Your task to perform on an android device: Add rayovac triple a to the cart on costco.com Image 0: 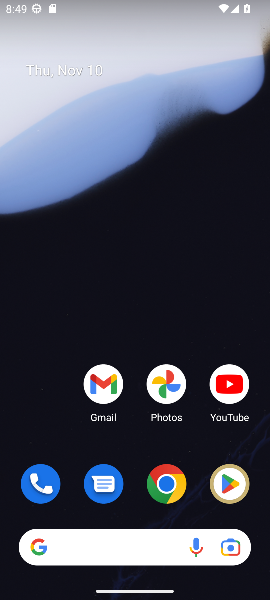
Step 0: click (170, 488)
Your task to perform on an android device: Add rayovac triple a to the cart on costco.com Image 1: 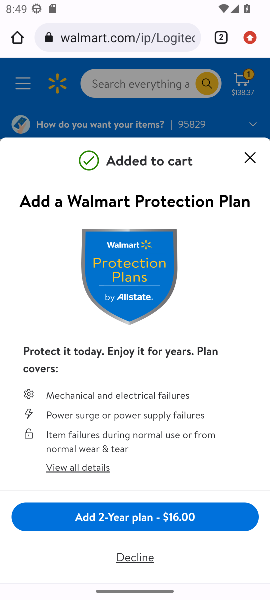
Step 1: click (123, 39)
Your task to perform on an android device: Add rayovac triple a to the cart on costco.com Image 2: 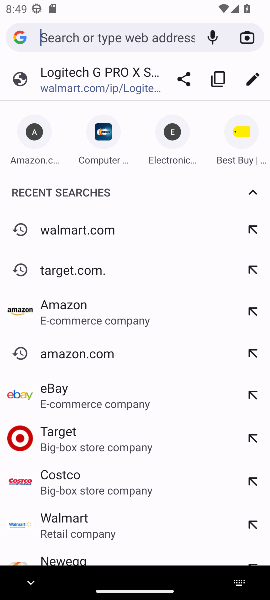
Step 2: type "costco.com"
Your task to perform on an android device: Add rayovac triple a to the cart on costco.com Image 3: 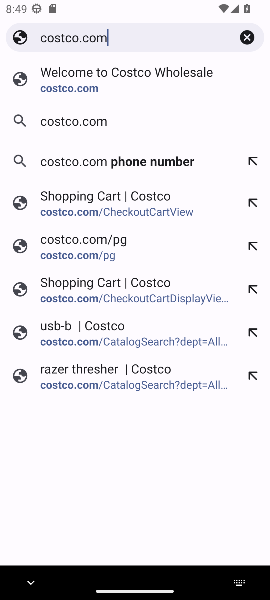
Step 3: click (82, 86)
Your task to perform on an android device: Add rayovac triple a to the cart on costco.com Image 4: 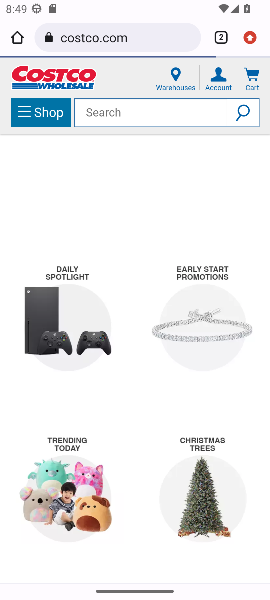
Step 4: click (117, 118)
Your task to perform on an android device: Add rayovac triple a to the cart on costco.com Image 5: 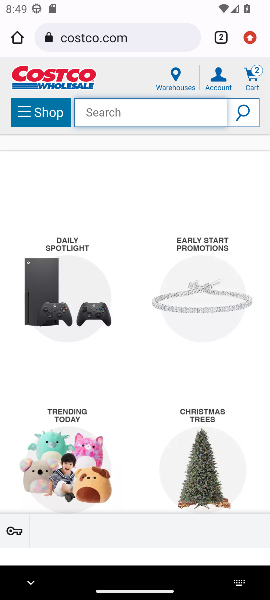
Step 5: type " rayovac triple a"
Your task to perform on an android device: Add rayovac triple a to the cart on costco.com Image 6: 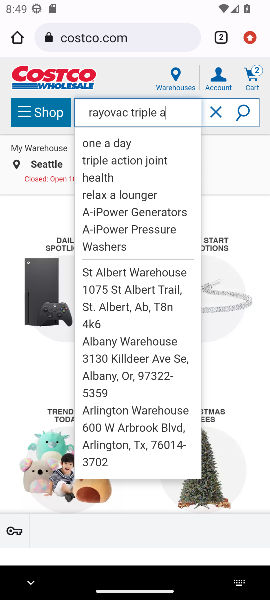
Step 6: click (245, 118)
Your task to perform on an android device: Add rayovac triple a to the cart on costco.com Image 7: 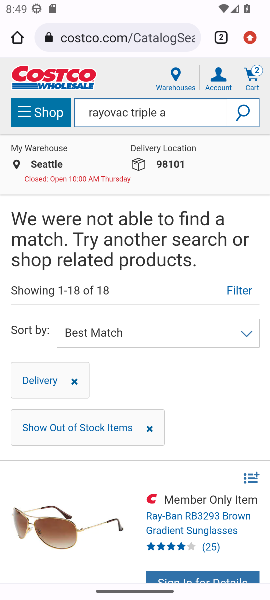
Step 7: task complete